Your task to perform on an android device: check storage Image 0: 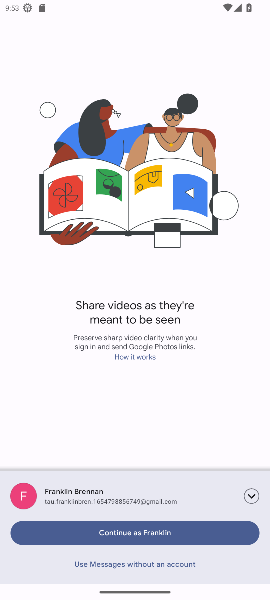
Step 0: press home button
Your task to perform on an android device: check storage Image 1: 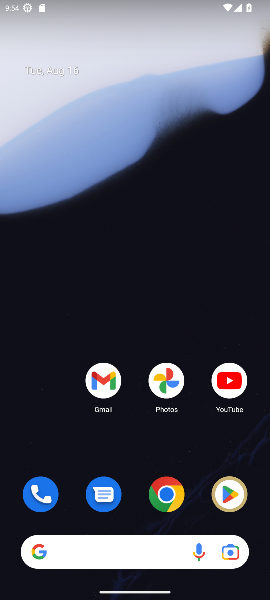
Step 1: drag from (206, 447) to (214, 56)
Your task to perform on an android device: check storage Image 2: 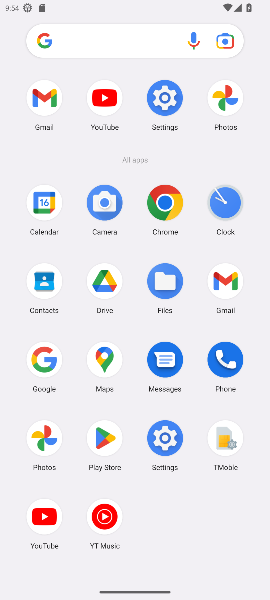
Step 2: click (161, 437)
Your task to perform on an android device: check storage Image 3: 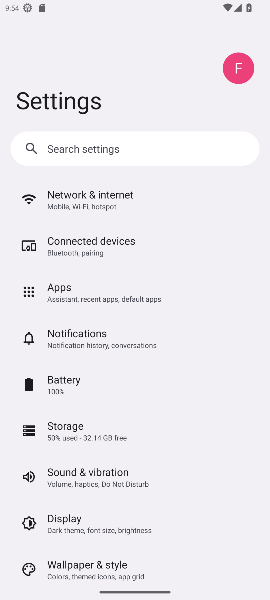
Step 3: click (55, 429)
Your task to perform on an android device: check storage Image 4: 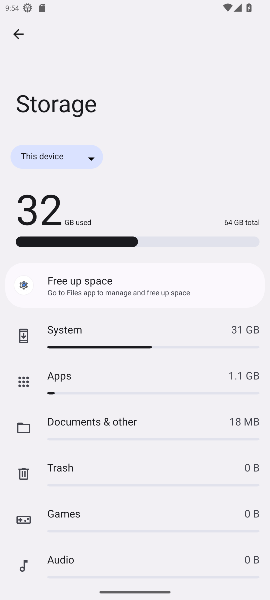
Step 4: task complete